Your task to perform on an android device: Show me recent news Image 0: 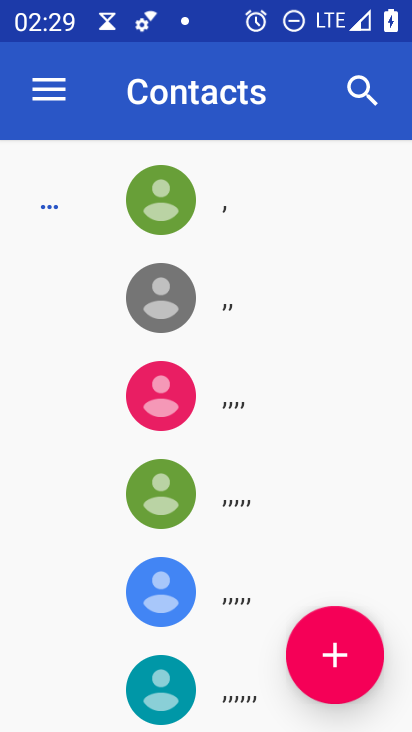
Step 0: press home button
Your task to perform on an android device: Show me recent news Image 1: 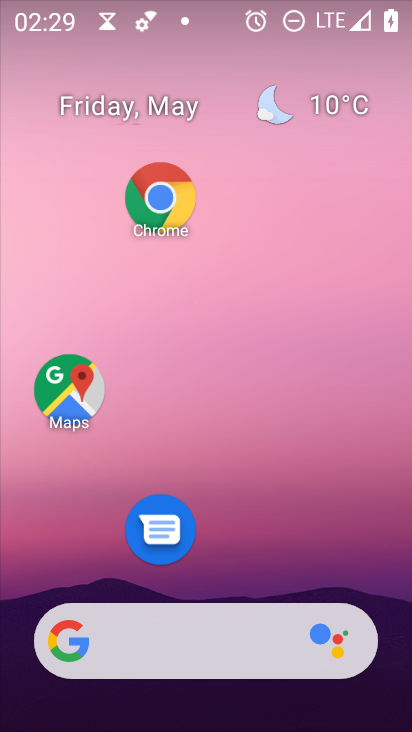
Step 1: click (140, 172)
Your task to perform on an android device: Show me recent news Image 2: 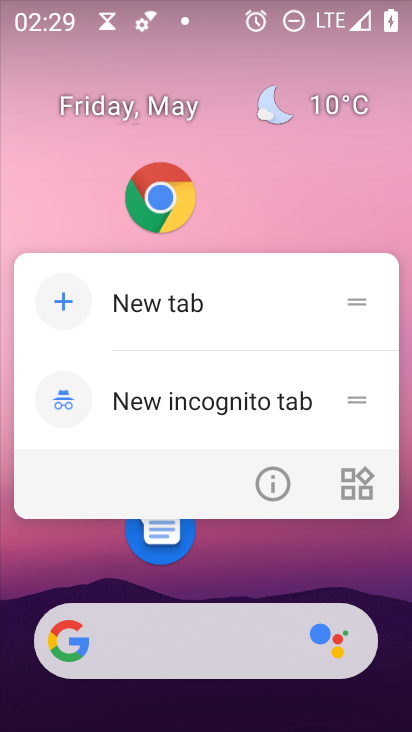
Step 2: click (180, 219)
Your task to perform on an android device: Show me recent news Image 3: 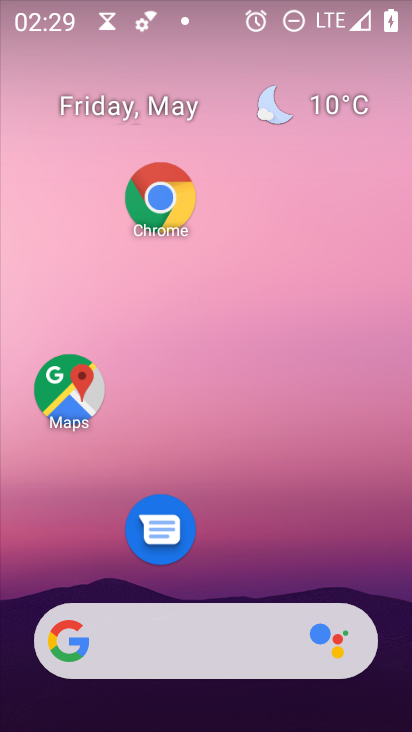
Step 3: click (162, 195)
Your task to perform on an android device: Show me recent news Image 4: 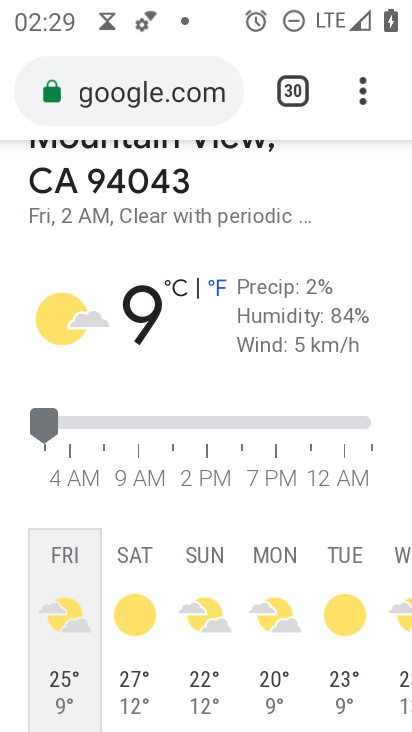
Step 4: click (340, 86)
Your task to perform on an android device: Show me recent news Image 5: 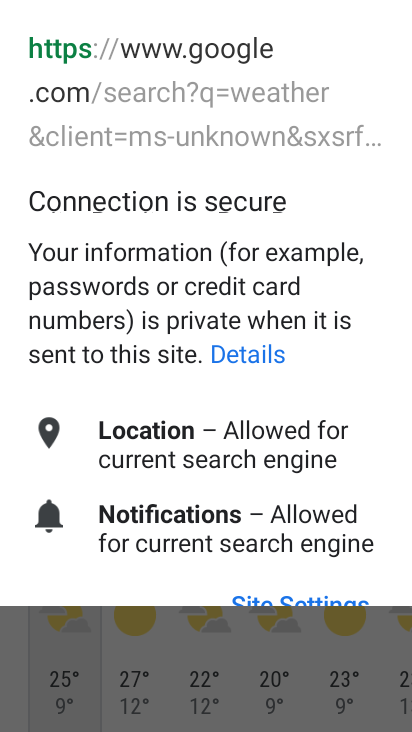
Step 5: press back button
Your task to perform on an android device: Show me recent news Image 6: 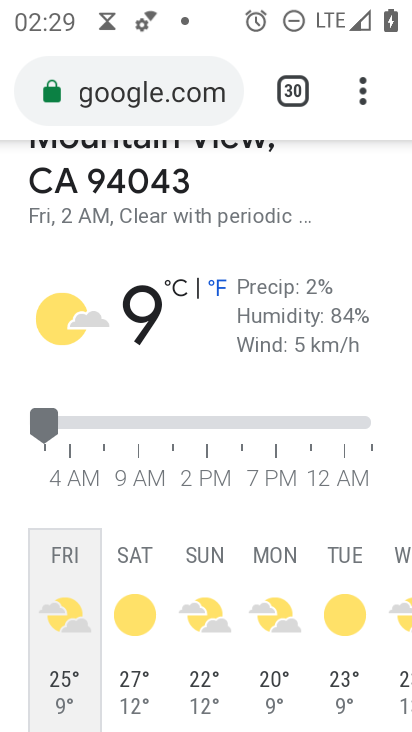
Step 6: click (381, 78)
Your task to perform on an android device: Show me recent news Image 7: 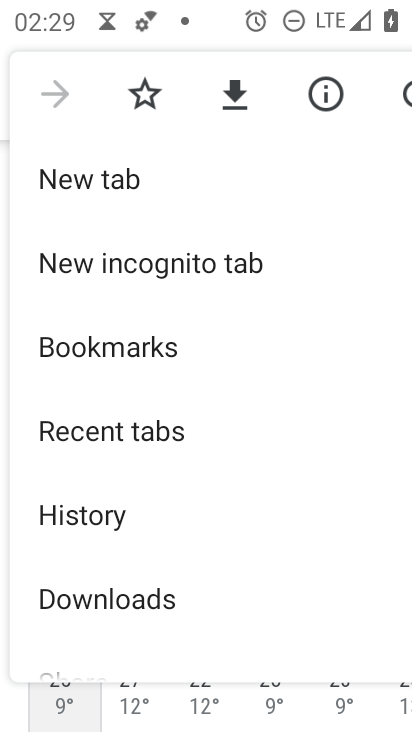
Step 7: click (158, 183)
Your task to perform on an android device: Show me recent news Image 8: 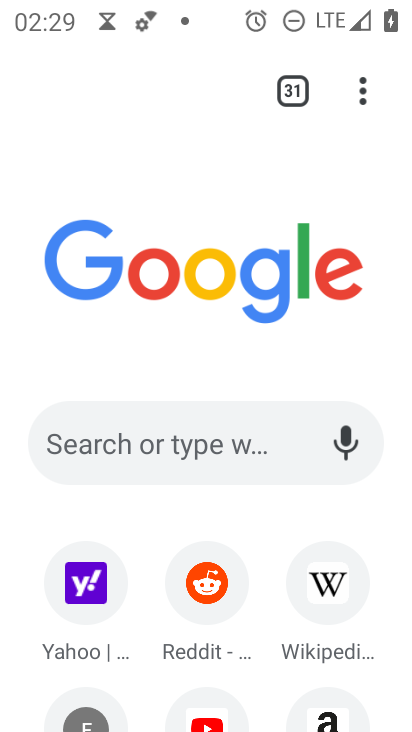
Step 8: click (245, 447)
Your task to perform on an android device: Show me recent news Image 9: 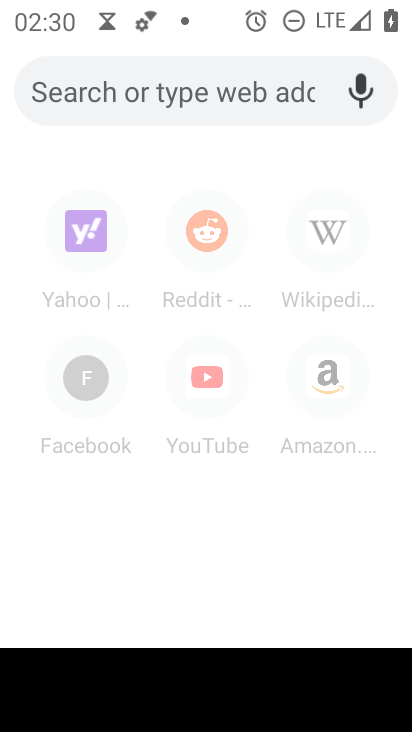
Step 9: type "Show me recent news"
Your task to perform on an android device: Show me recent news Image 10: 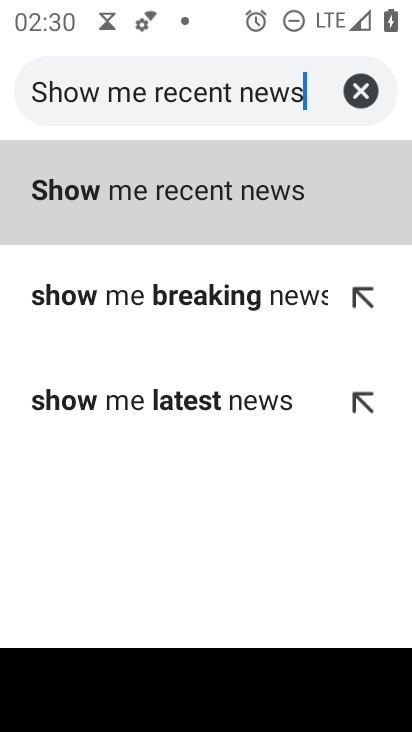
Step 10: click (223, 182)
Your task to perform on an android device: Show me recent news Image 11: 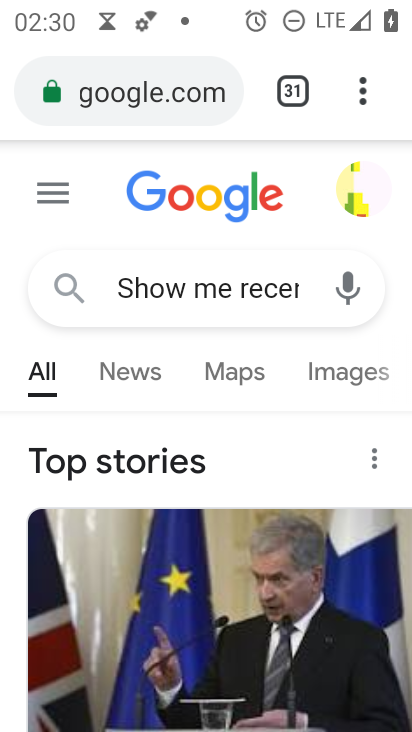
Step 11: task complete